Your task to perform on an android device: Do I have any events tomorrow? Image 0: 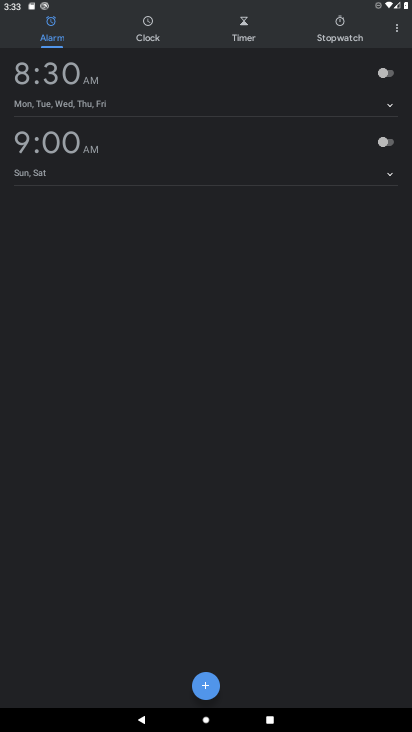
Step 0: press home button
Your task to perform on an android device: Do I have any events tomorrow? Image 1: 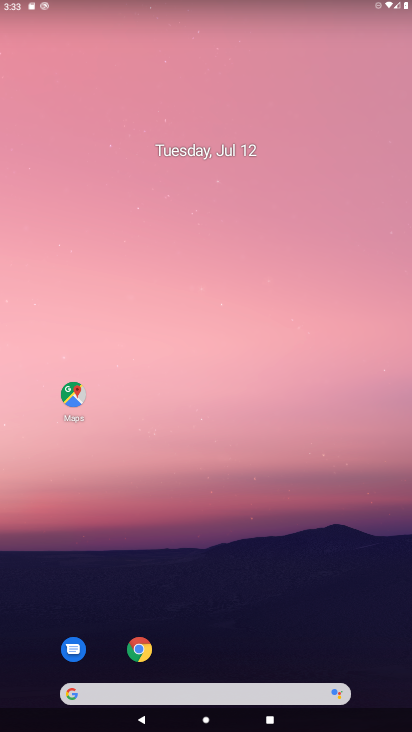
Step 1: drag from (241, 572) to (172, 211)
Your task to perform on an android device: Do I have any events tomorrow? Image 2: 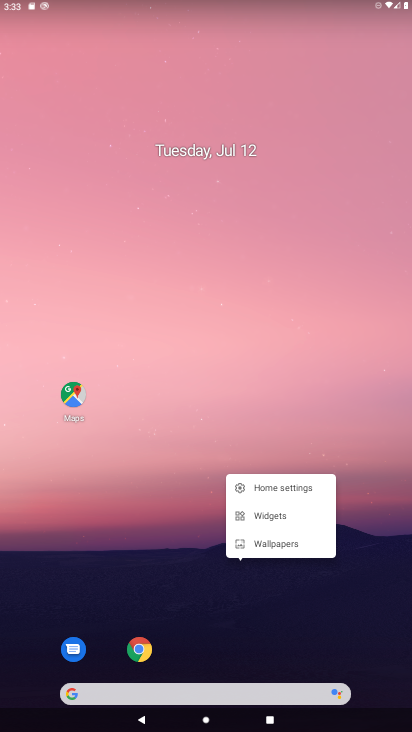
Step 2: click (193, 394)
Your task to perform on an android device: Do I have any events tomorrow? Image 3: 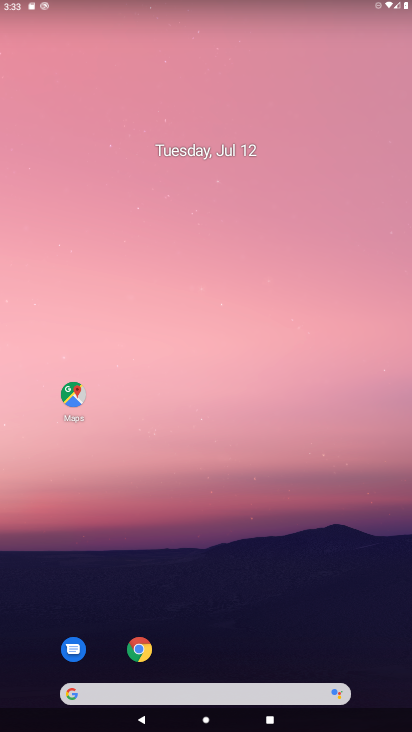
Step 3: drag from (228, 630) to (200, 63)
Your task to perform on an android device: Do I have any events tomorrow? Image 4: 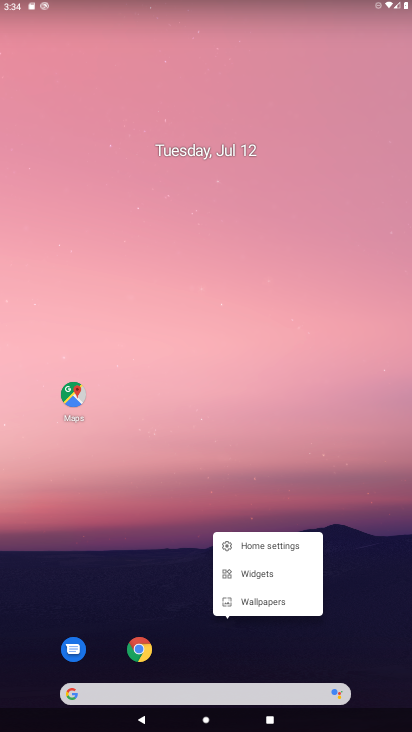
Step 4: click (156, 287)
Your task to perform on an android device: Do I have any events tomorrow? Image 5: 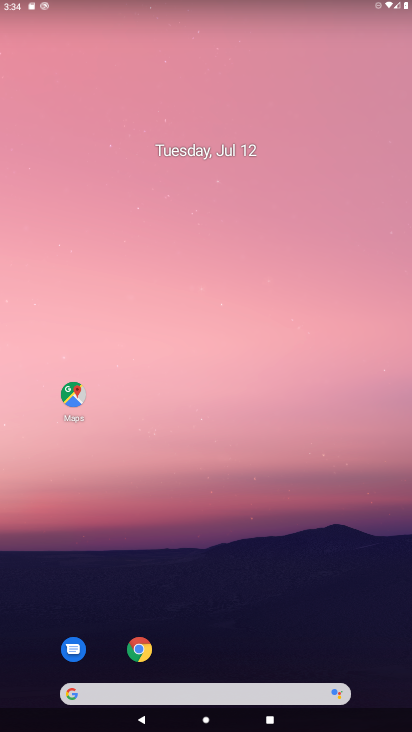
Step 5: drag from (230, 634) to (221, 154)
Your task to perform on an android device: Do I have any events tomorrow? Image 6: 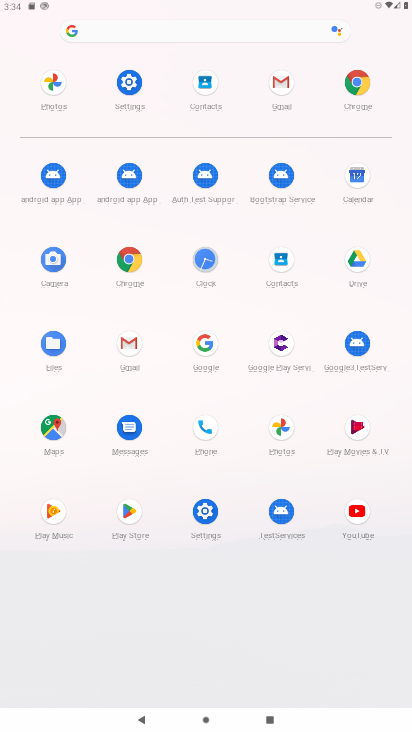
Step 6: click (205, 115)
Your task to perform on an android device: Do I have any events tomorrow? Image 7: 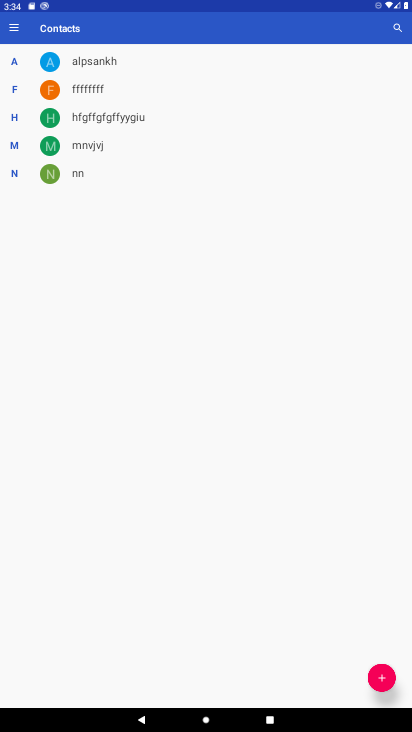
Step 7: press back button
Your task to perform on an android device: Do I have any events tomorrow? Image 8: 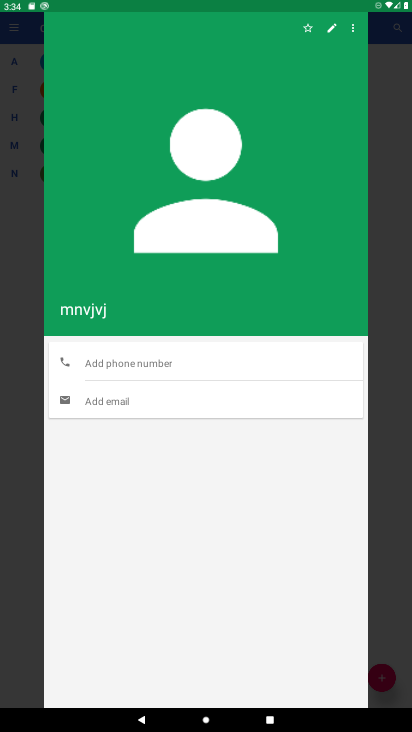
Step 8: press back button
Your task to perform on an android device: Do I have any events tomorrow? Image 9: 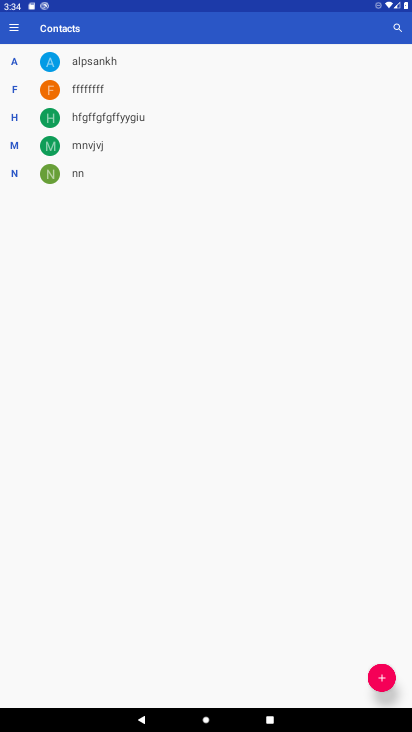
Step 9: press back button
Your task to perform on an android device: Do I have any events tomorrow? Image 10: 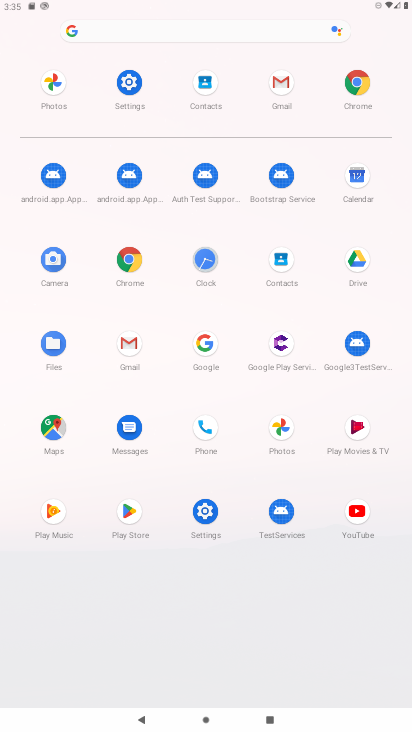
Step 10: click (350, 176)
Your task to perform on an android device: Do I have any events tomorrow? Image 11: 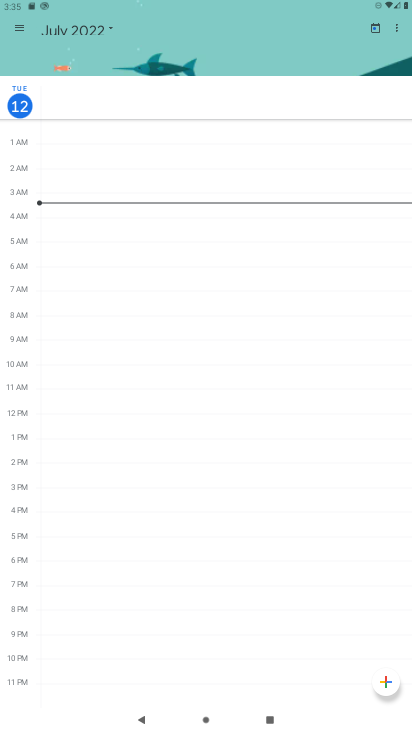
Step 11: task complete